Your task to perform on an android device: Open accessibility settings Image 0: 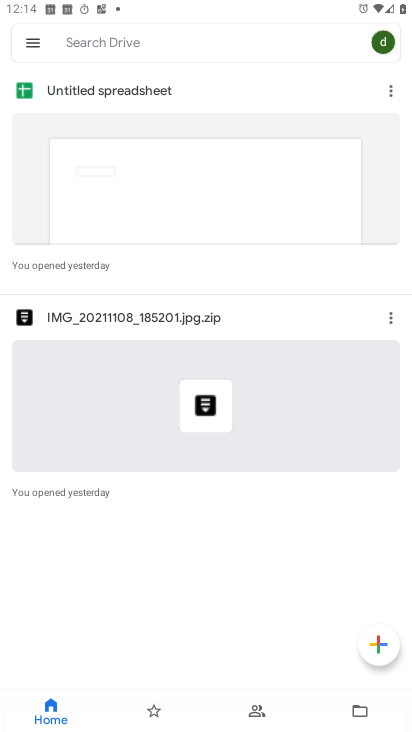
Step 0: press home button
Your task to perform on an android device: Open accessibility settings Image 1: 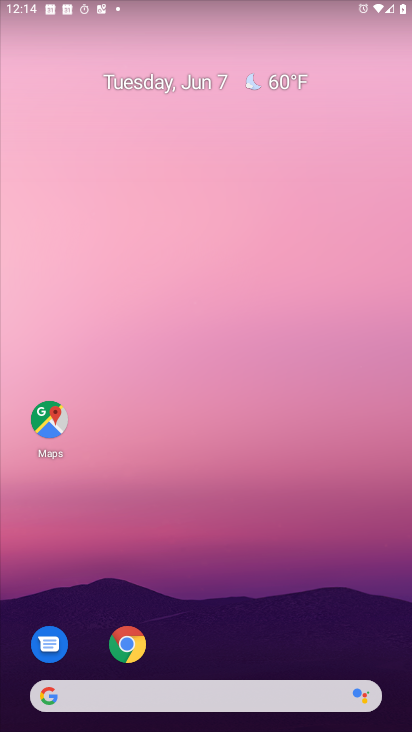
Step 1: drag from (120, 723) to (214, 82)
Your task to perform on an android device: Open accessibility settings Image 2: 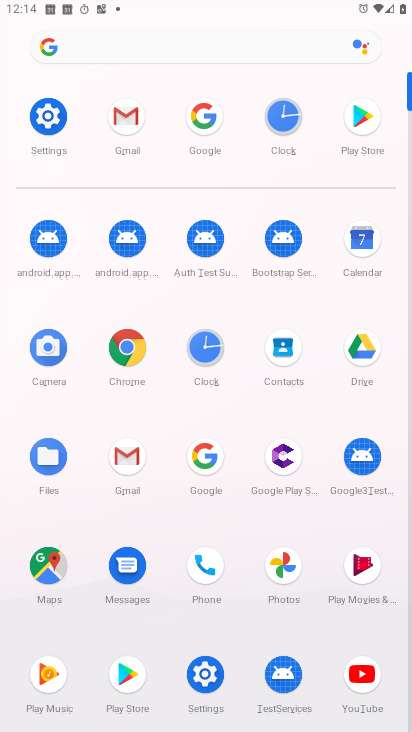
Step 2: click (41, 120)
Your task to perform on an android device: Open accessibility settings Image 3: 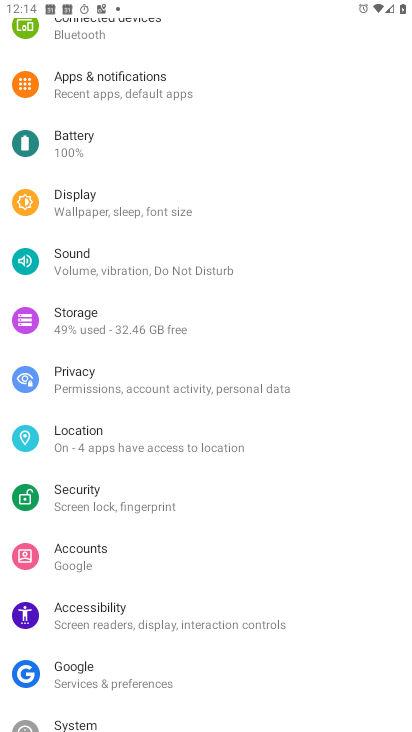
Step 3: click (149, 627)
Your task to perform on an android device: Open accessibility settings Image 4: 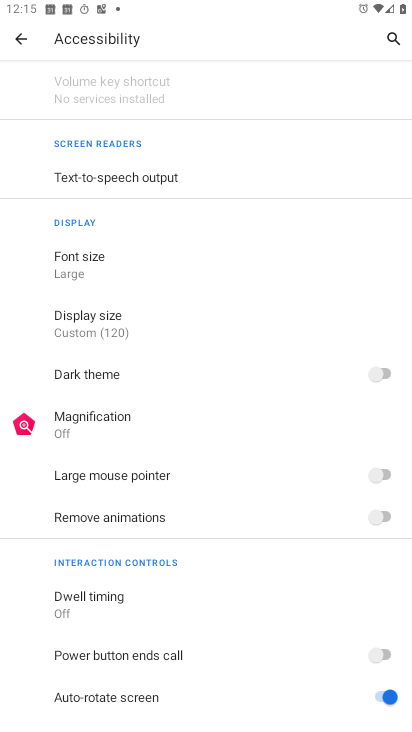
Step 4: task complete